Your task to perform on an android device: allow cookies in the chrome app Image 0: 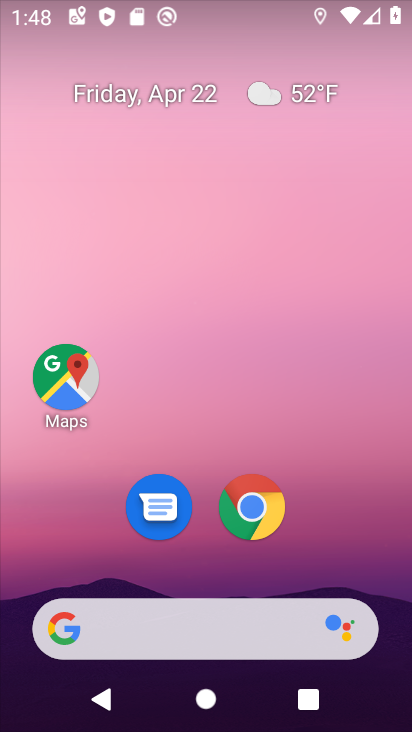
Step 0: drag from (129, 640) to (183, 198)
Your task to perform on an android device: allow cookies in the chrome app Image 1: 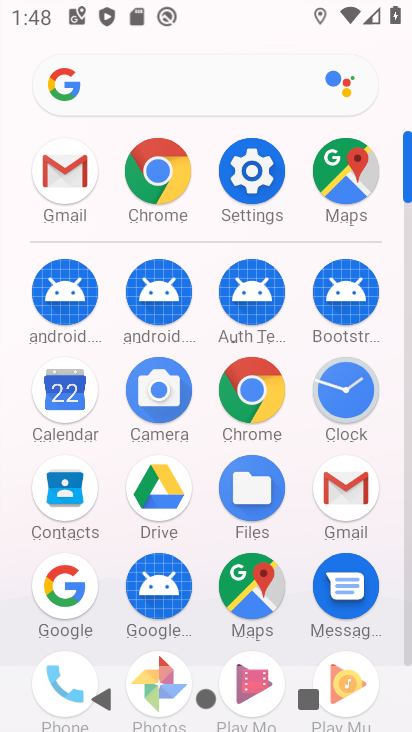
Step 1: click (146, 179)
Your task to perform on an android device: allow cookies in the chrome app Image 2: 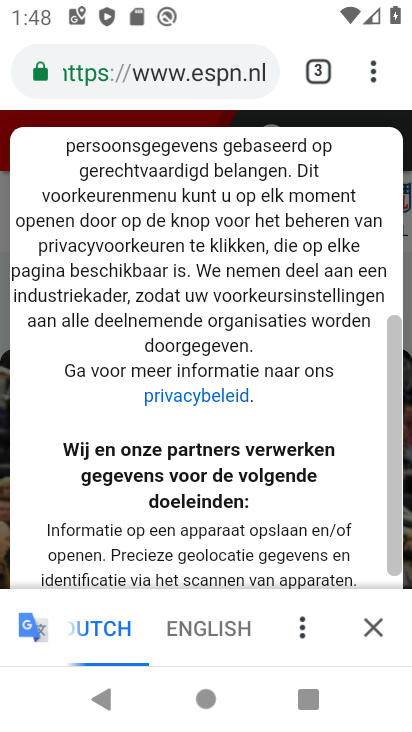
Step 2: drag from (373, 75) to (138, 499)
Your task to perform on an android device: allow cookies in the chrome app Image 3: 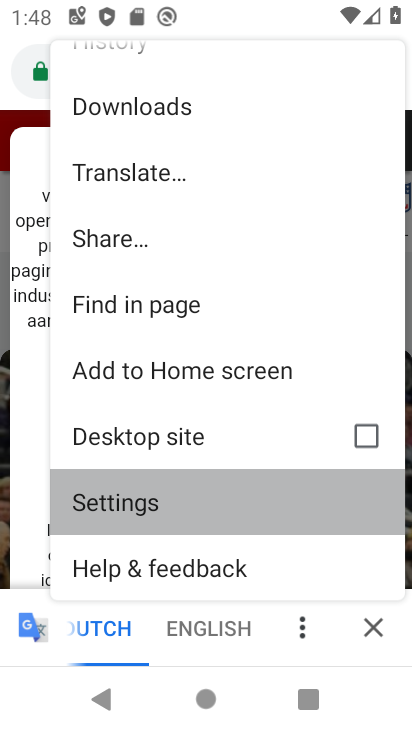
Step 3: click (138, 499)
Your task to perform on an android device: allow cookies in the chrome app Image 4: 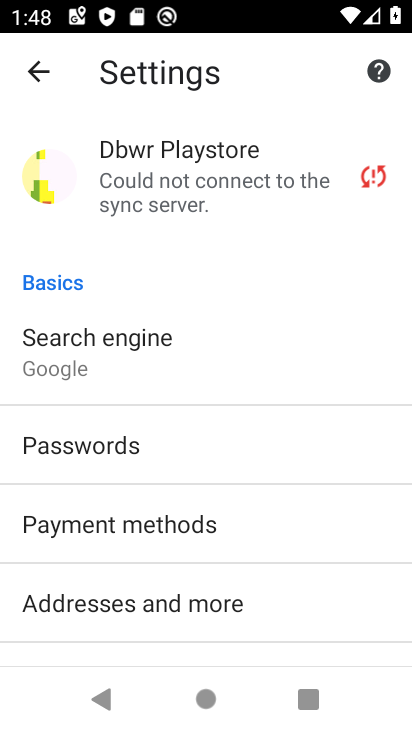
Step 4: drag from (124, 564) to (213, 308)
Your task to perform on an android device: allow cookies in the chrome app Image 5: 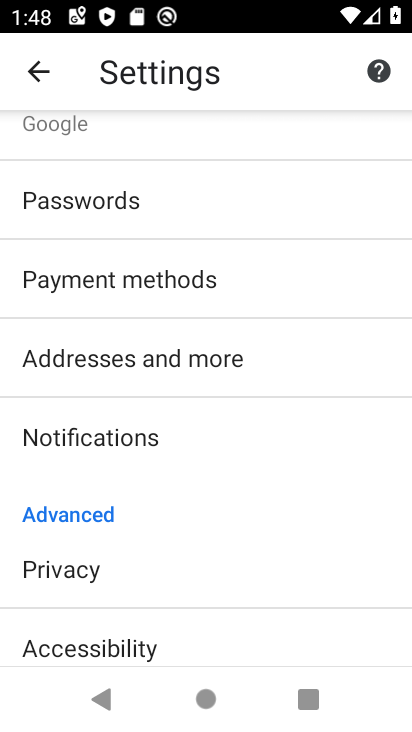
Step 5: drag from (120, 598) to (288, 254)
Your task to perform on an android device: allow cookies in the chrome app Image 6: 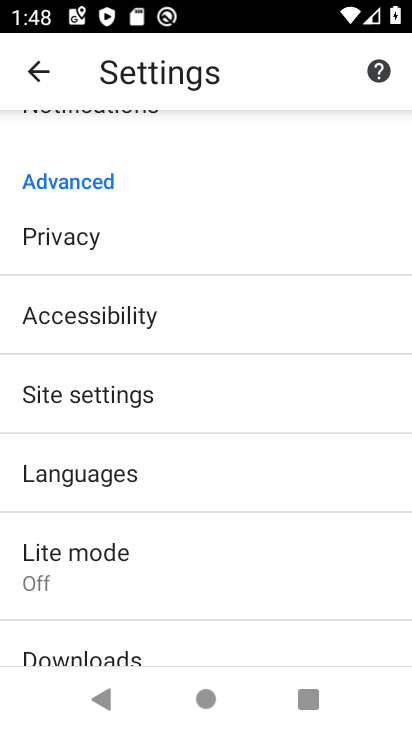
Step 6: click (82, 397)
Your task to perform on an android device: allow cookies in the chrome app Image 7: 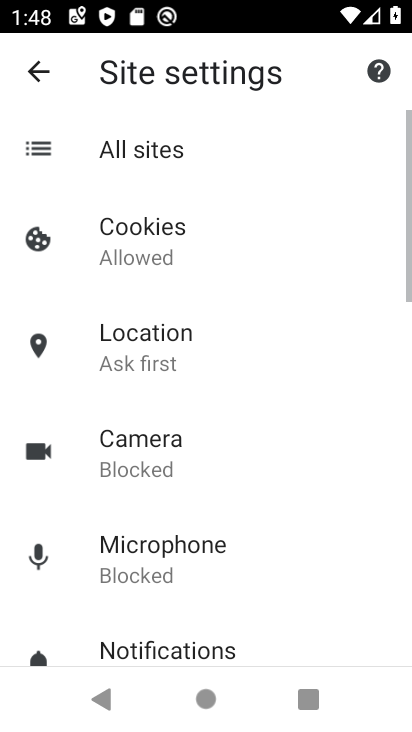
Step 7: click (142, 251)
Your task to perform on an android device: allow cookies in the chrome app Image 8: 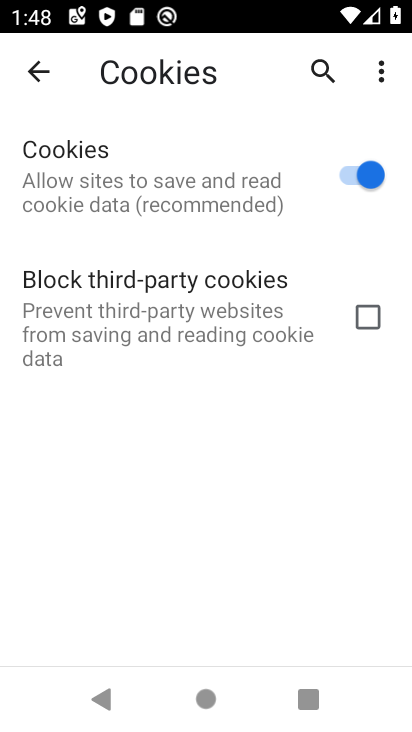
Step 8: task complete